Your task to perform on an android device: turn off picture-in-picture Image 0: 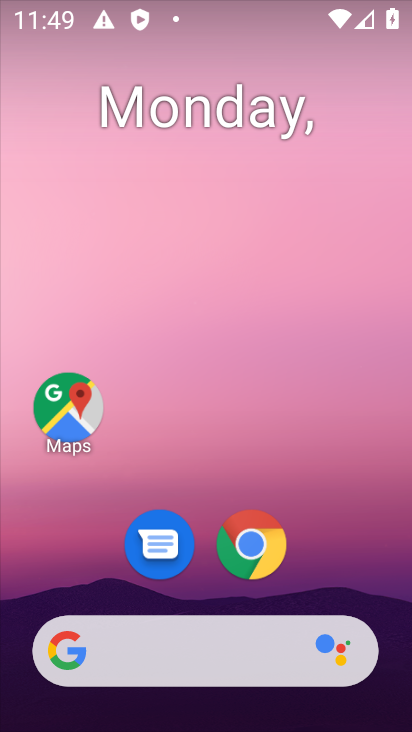
Step 0: click (249, 544)
Your task to perform on an android device: turn off picture-in-picture Image 1: 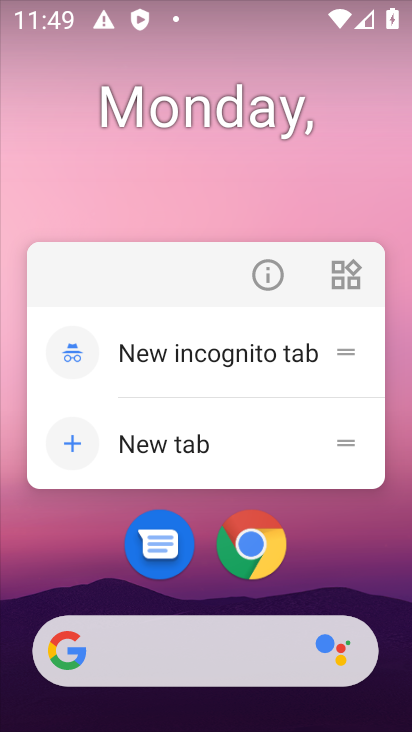
Step 1: click (271, 265)
Your task to perform on an android device: turn off picture-in-picture Image 2: 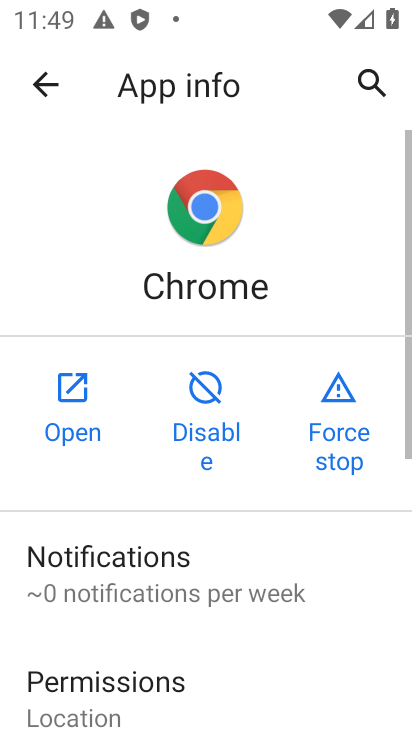
Step 2: drag from (299, 645) to (345, 74)
Your task to perform on an android device: turn off picture-in-picture Image 3: 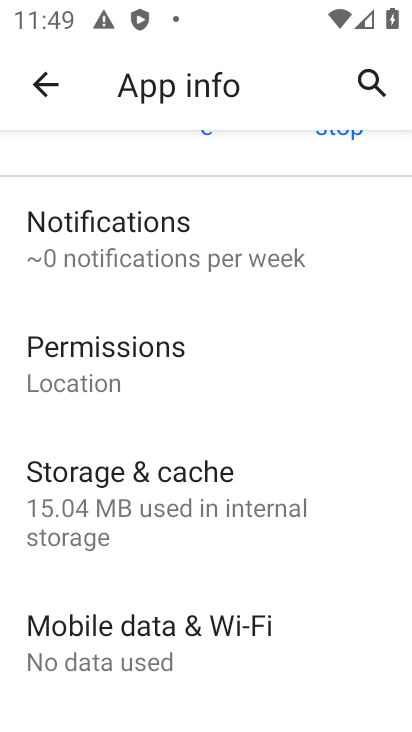
Step 3: drag from (320, 585) to (333, 66)
Your task to perform on an android device: turn off picture-in-picture Image 4: 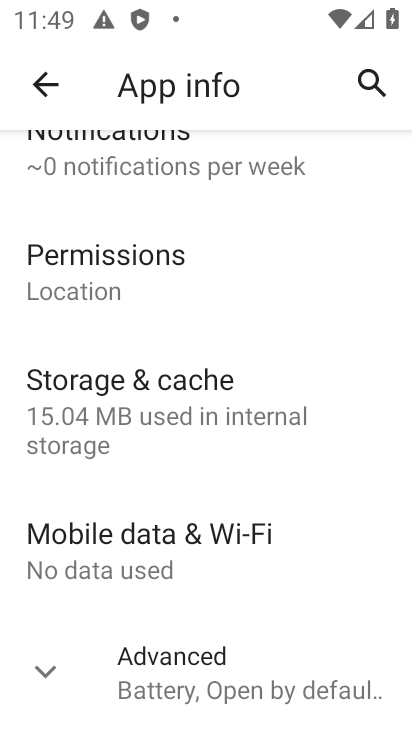
Step 4: click (177, 666)
Your task to perform on an android device: turn off picture-in-picture Image 5: 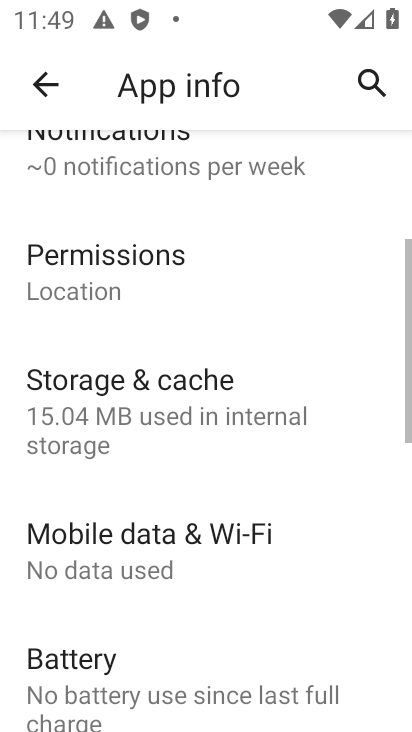
Step 5: drag from (306, 642) to (343, 79)
Your task to perform on an android device: turn off picture-in-picture Image 6: 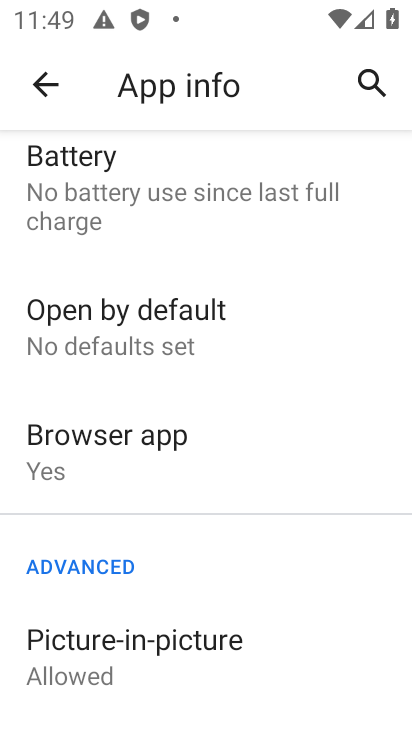
Step 6: drag from (254, 565) to (302, 246)
Your task to perform on an android device: turn off picture-in-picture Image 7: 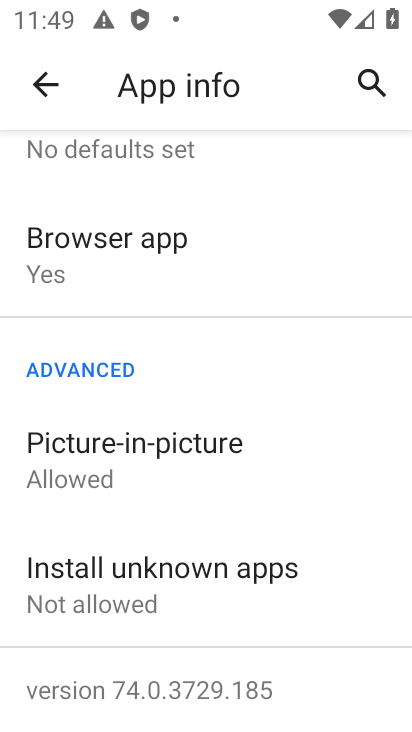
Step 7: click (158, 483)
Your task to perform on an android device: turn off picture-in-picture Image 8: 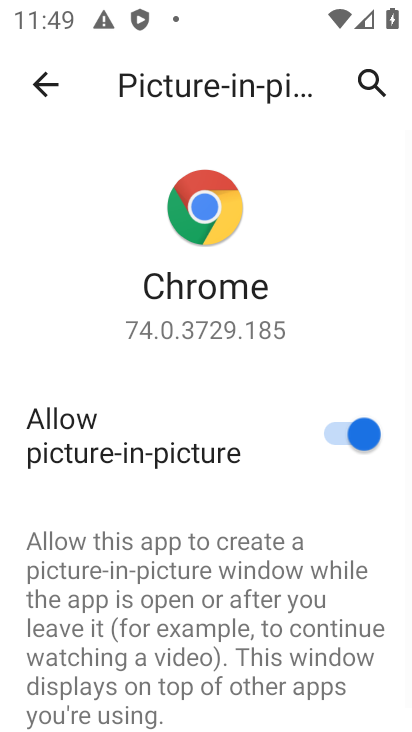
Step 8: click (336, 444)
Your task to perform on an android device: turn off picture-in-picture Image 9: 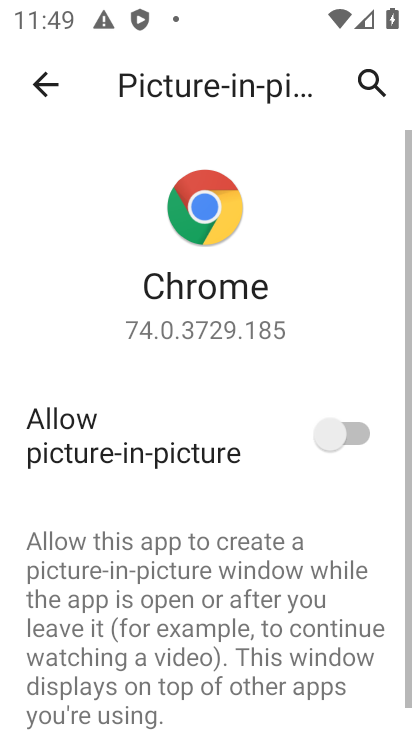
Step 9: task complete